Your task to perform on an android device: Clear the cart on bestbuy. Add jbl flip 4 to the cart on bestbuy, then select checkout. Image 0: 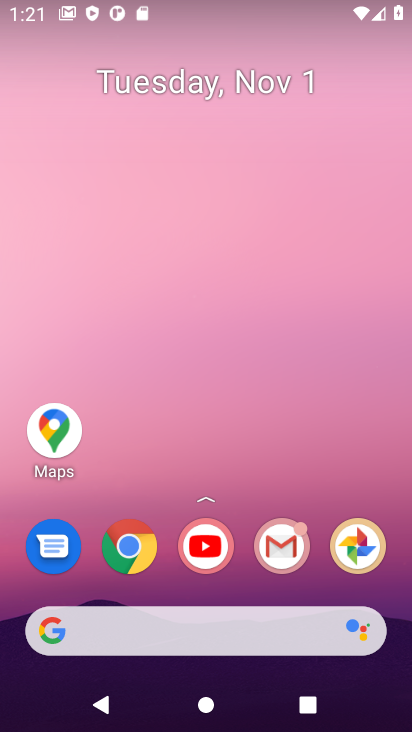
Step 0: click (122, 553)
Your task to perform on an android device: Clear the cart on bestbuy. Add jbl flip 4 to the cart on bestbuy, then select checkout. Image 1: 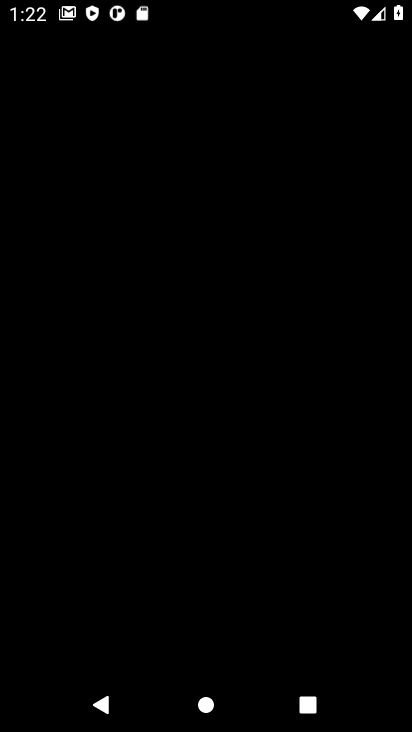
Step 1: press home button
Your task to perform on an android device: Clear the cart on bestbuy. Add jbl flip 4 to the cart on bestbuy, then select checkout. Image 2: 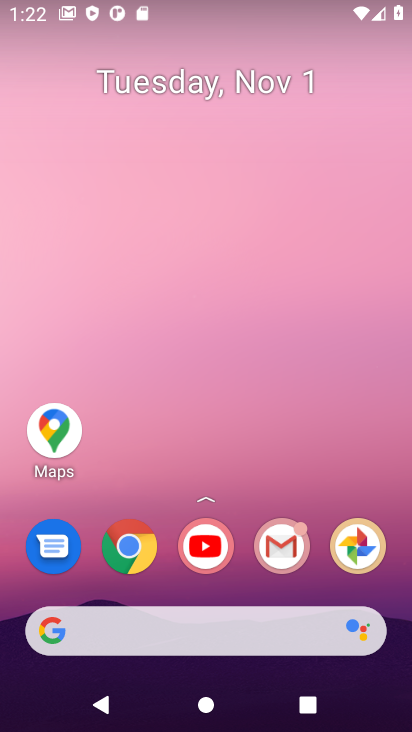
Step 2: click (116, 545)
Your task to perform on an android device: Clear the cart on bestbuy. Add jbl flip 4 to the cart on bestbuy, then select checkout. Image 3: 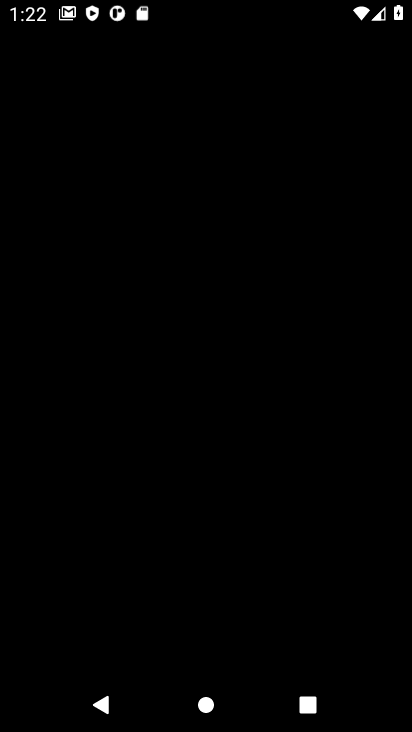
Step 3: task complete